Your task to perform on an android device: Go to Google Image 0: 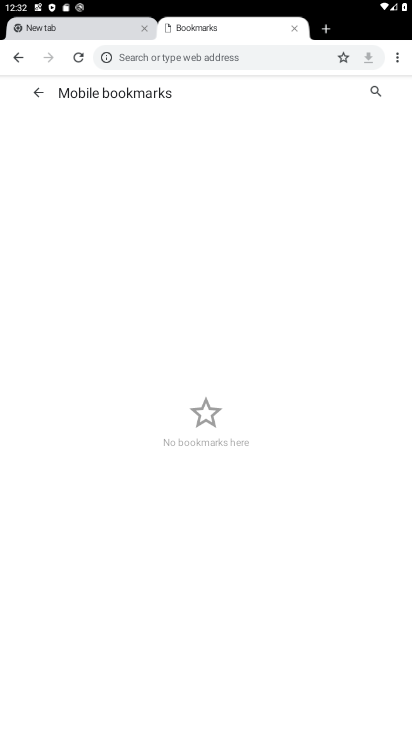
Step 0: press home button
Your task to perform on an android device: Go to Google Image 1: 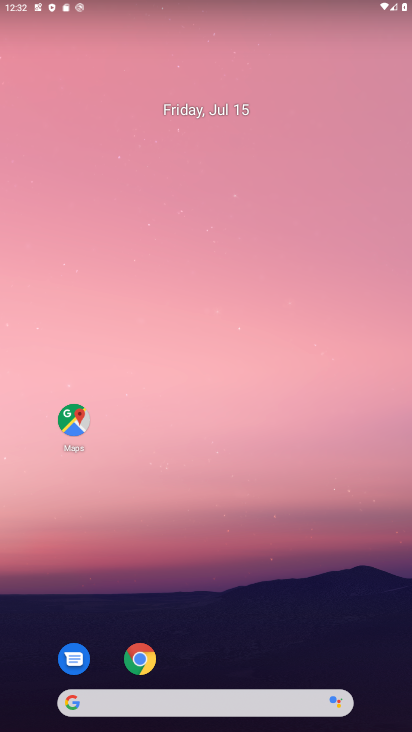
Step 1: drag from (198, 646) to (198, 173)
Your task to perform on an android device: Go to Google Image 2: 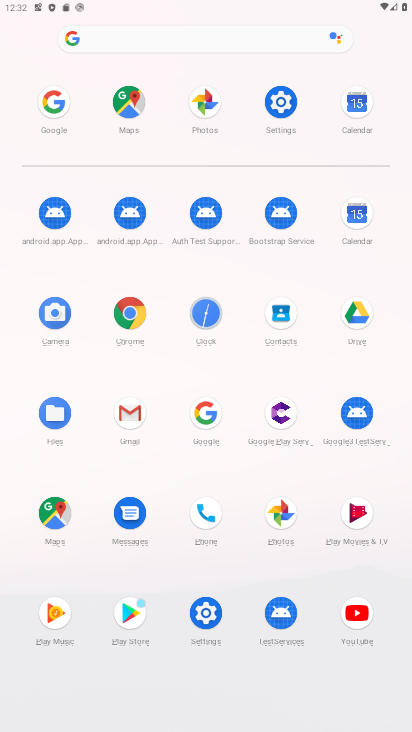
Step 2: click (59, 114)
Your task to perform on an android device: Go to Google Image 3: 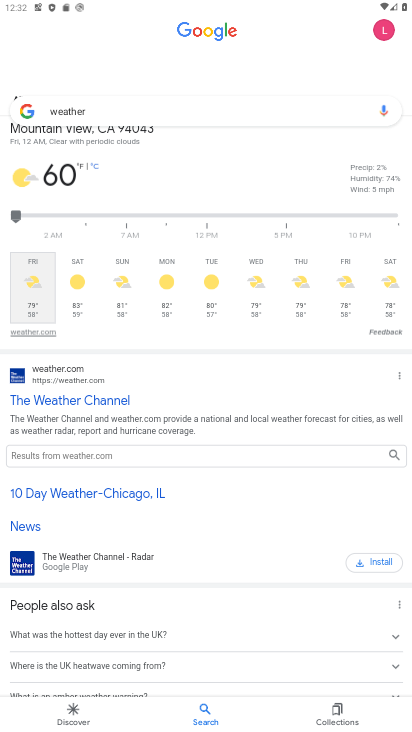
Step 3: task complete